Your task to perform on an android device: open a new tab in the chrome app Image 0: 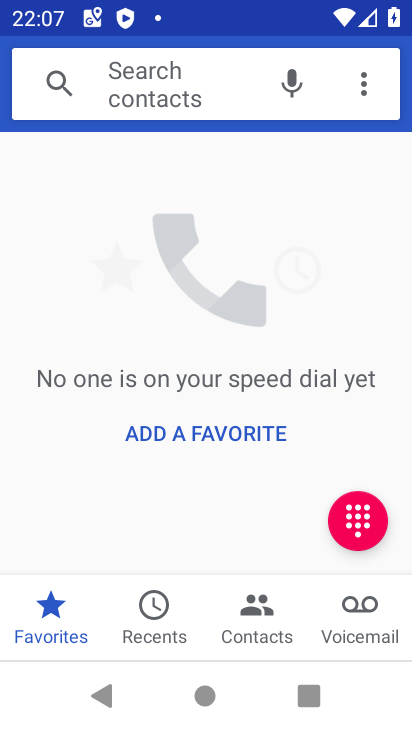
Step 0: press home button
Your task to perform on an android device: open a new tab in the chrome app Image 1: 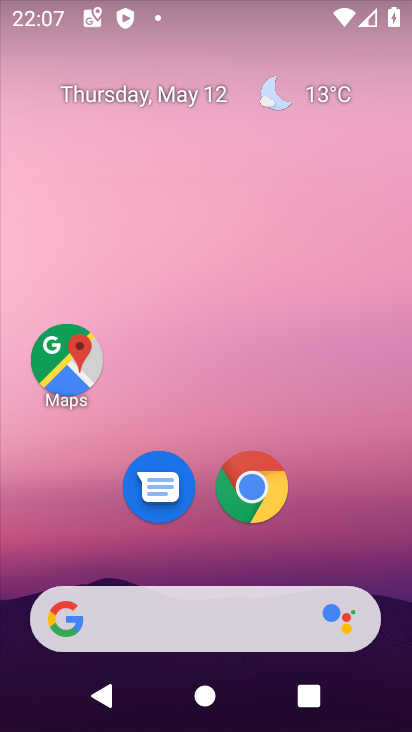
Step 1: click (254, 475)
Your task to perform on an android device: open a new tab in the chrome app Image 2: 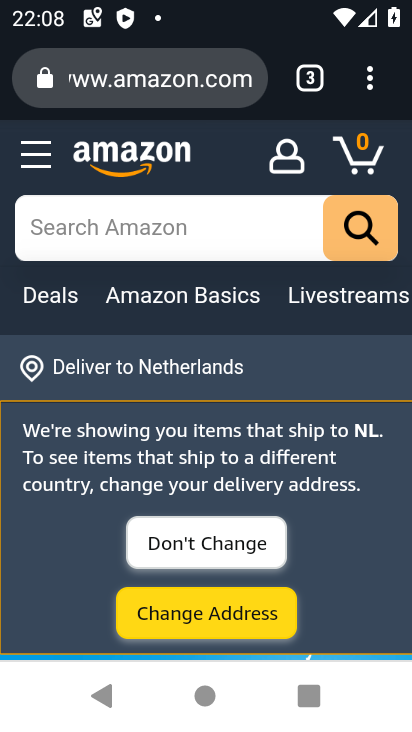
Step 2: click (388, 70)
Your task to perform on an android device: open a new tab in the chrome app Image 3: 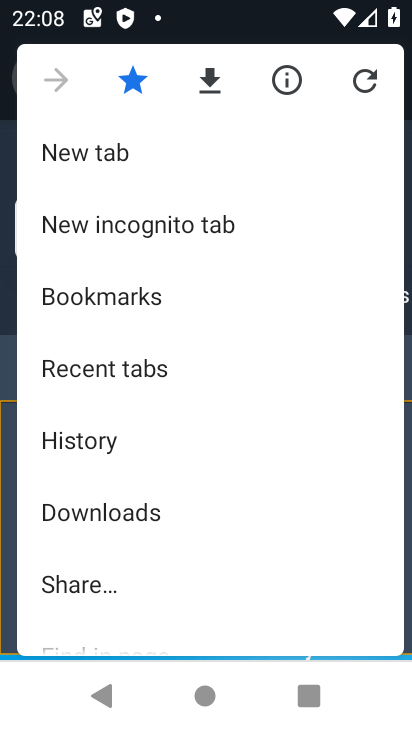
Step 3: click (162, 175)
Your task to perform on an android device: open a new tab in the chrome app Image 4: 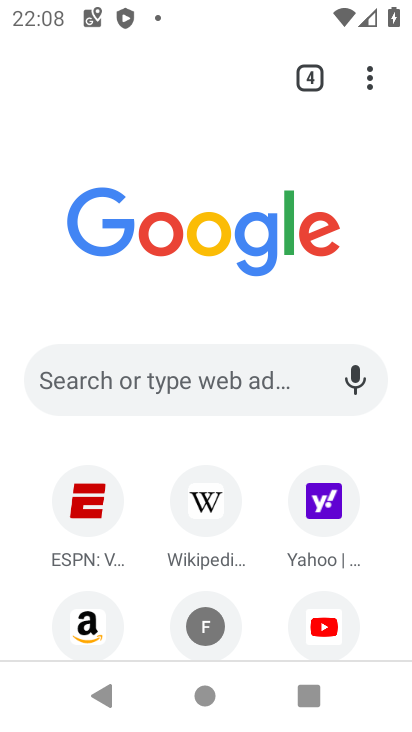
Step 4: task complete